Your task to perform on an android device: turn off location history Image 0: 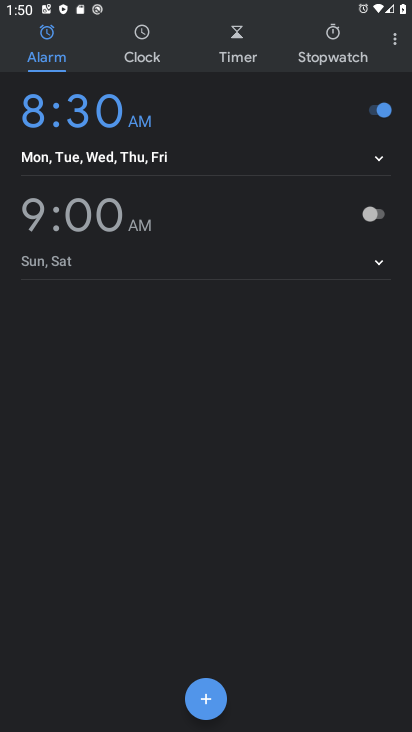
Step 0: press home button
Your task to perform on an android device: turn off location history Image 1: 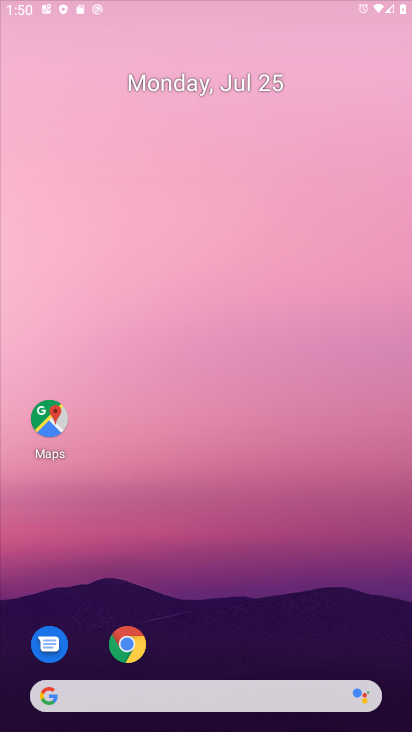
Step 1: drag from (375, 653) to (43, 28)
Your task to perform on an android device: turn off location history Image 2: 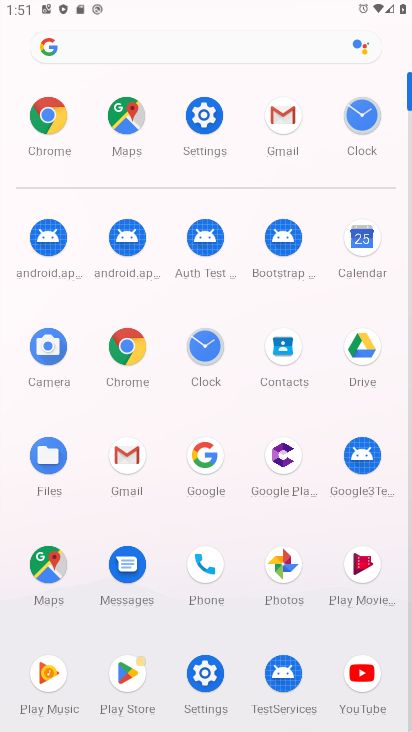
Step 2: click (214, 675)
Your task to perform on an android device: turn off location history Image 3: 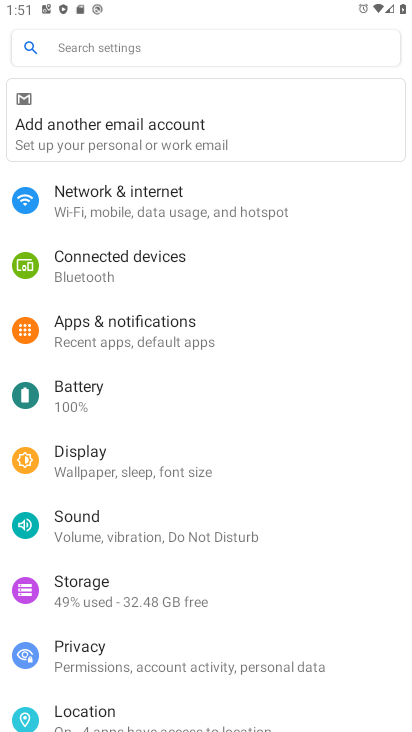
Step 3: click (100, 719)
Your task to perform on an android device: turn off location history Image 4: 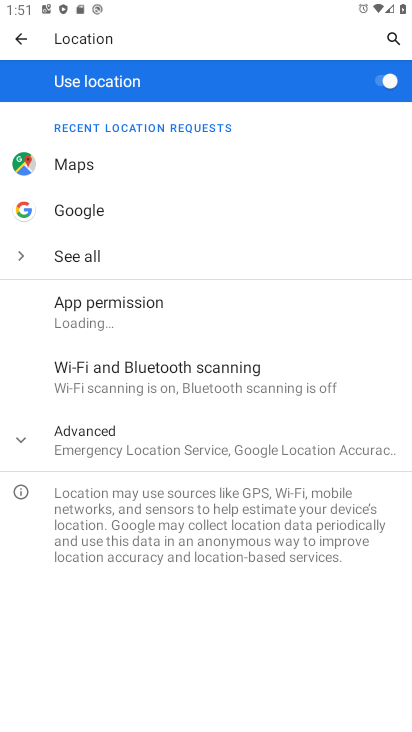
Step 4: click (121, 434)
Your task to perform on an android device: turn off location history Image 5: 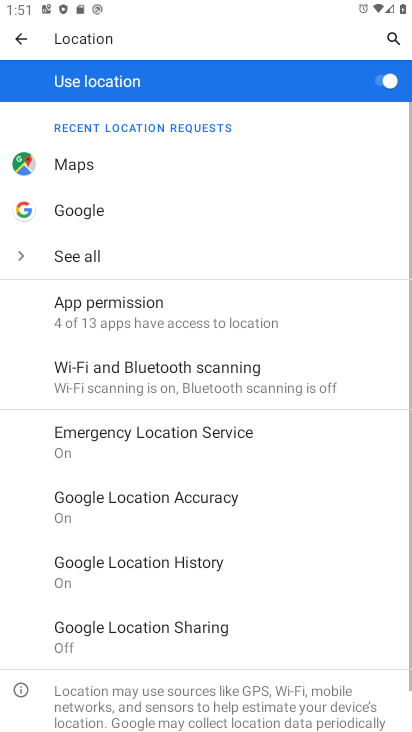
Step 5: click (112, 571)
Your task to perform on an android device: turn off location history Image 6: 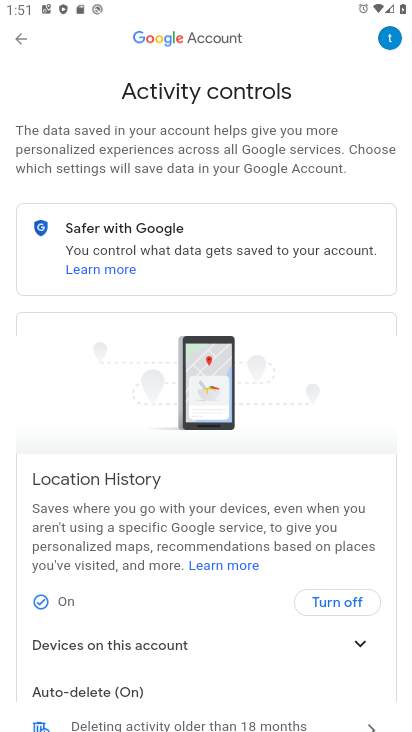
Step 6: task complete